Your task to perform on an android device: open chrome privacy settings Image 0: 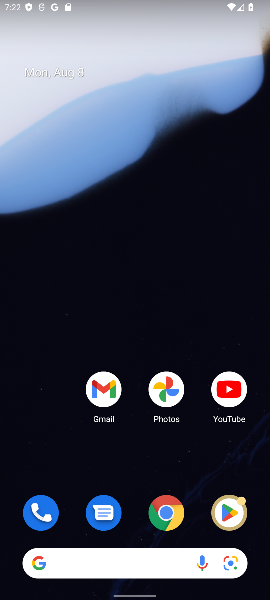
Step 0: click (175, 511)
Your task to perform on an android device: open chrome privacy settings Image 1: 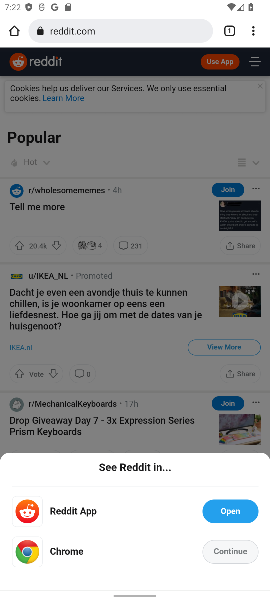
Step 1: click (255, 28)
Your task to perform on an android device: open chrome privacy settings Image 2: 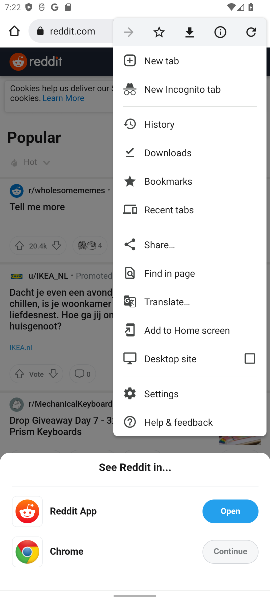
Step 2: click (174, 389)
Your task to perform on an android device: open chrome privacy settings Image 3: 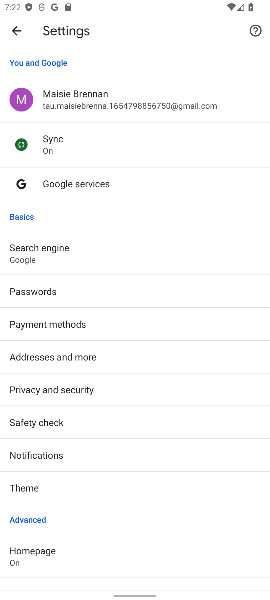
Step 3: click (87, 391)
Your task to perform on an android device: open chrome privacy settings Image 4: 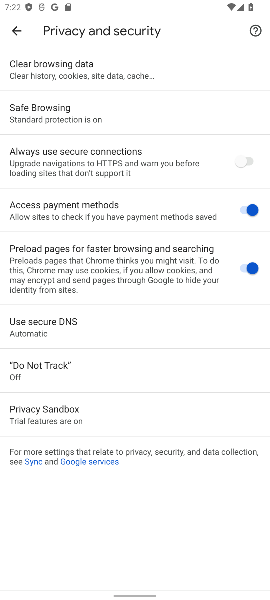
Step 4: task complete